Your task to perform on an android device: Open sound settings Image 0: 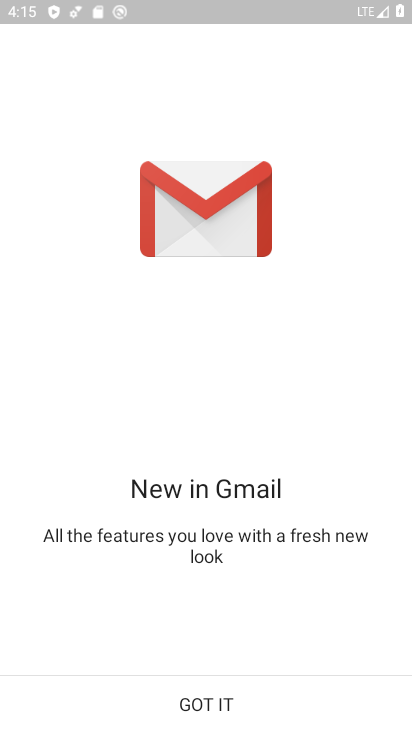
Step 0: press home button
Your task to perform on an android device: Open sound settings Image 1: 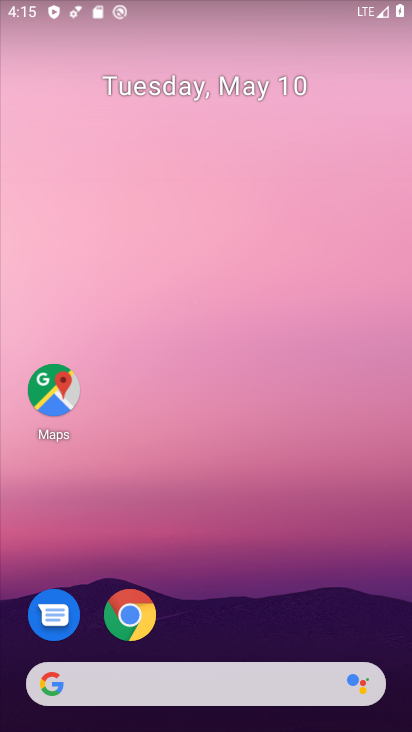
Step 1: drag from (251, 637) to (243, 26)
Your task to perform on an android device: Open sound settings Image 2: 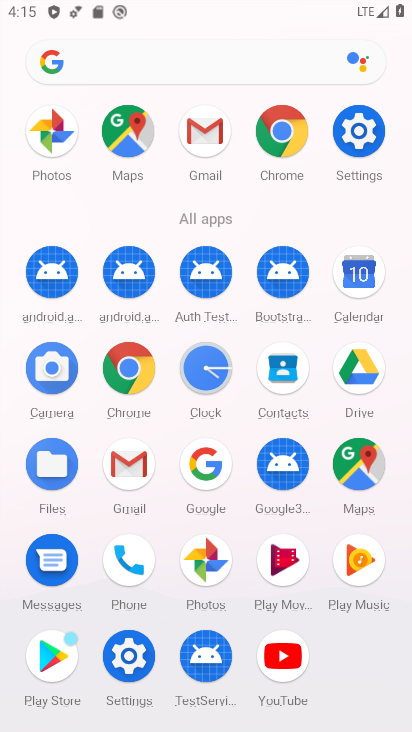
Step 2: click (350, 130)
Your task to perform on an android device: Open sound settings Image 3: 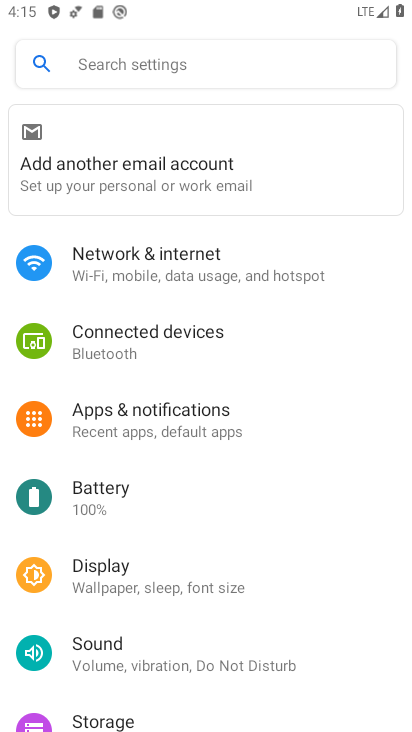
Step 3: click (169, 660)
Your task to perform on an android device: Open sound settings Image 4: 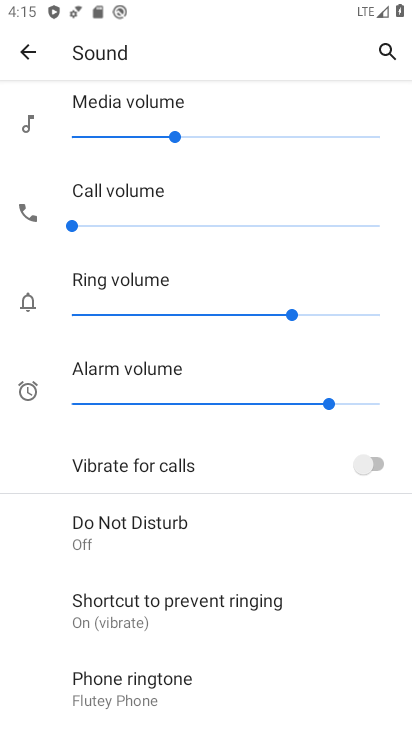
Step 4: task complete